Your task to perform on an android device: check android version Image 0: 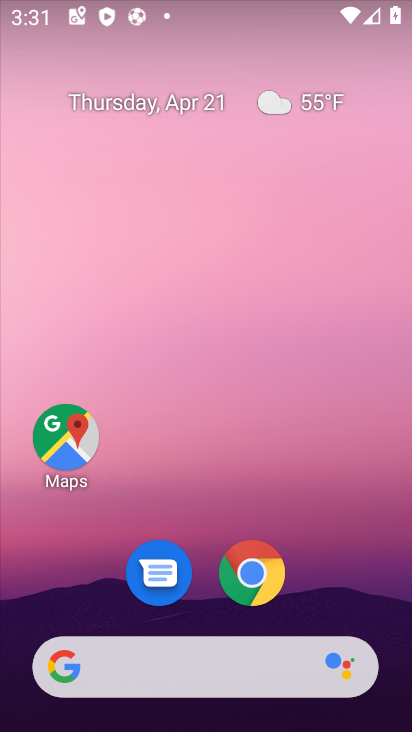
Step 0: drag from (358, 580) to (299, 164)
Your task to perform on an android device: check android version Image 1: 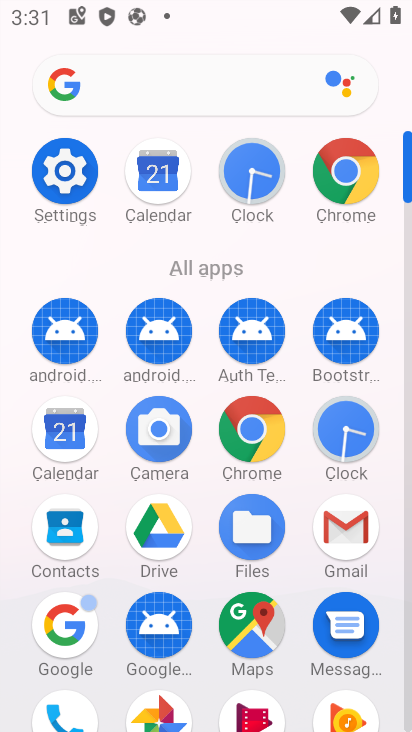
Step 1: click (409, 709)
Your task to perform on an android device: check android version Image 2: 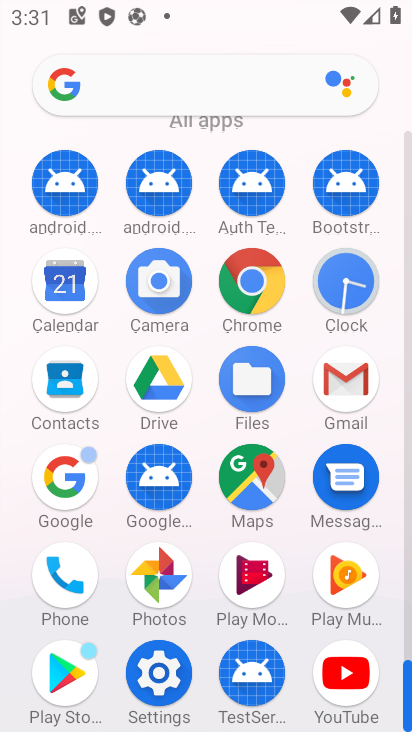
Step 2: click (153, 673)
Your task to perform on an android device: check android version Image 3: 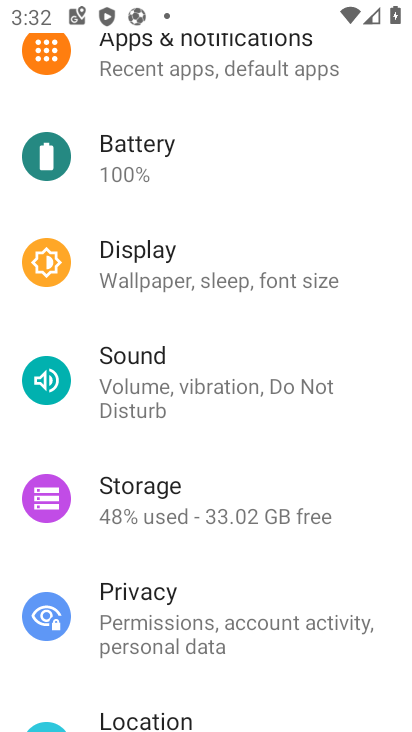
Step 3: drag from (299, 602) to (334, 299)
Your task to perform on an android device: check android version Image 4: 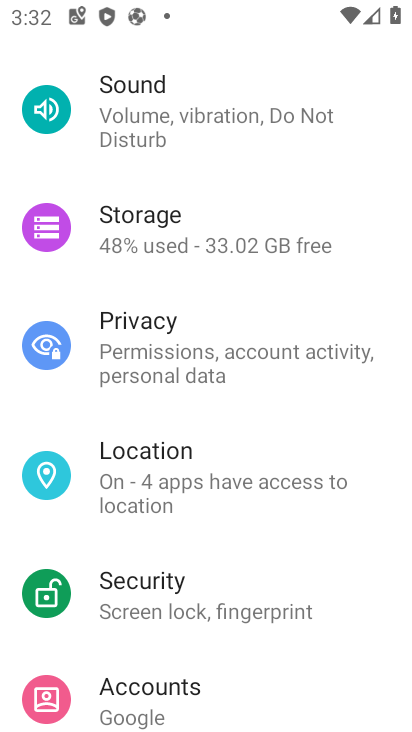
Step 4: drag from (340, 556) to (351, 305)
Your task to perform on an android device: check android version Image 5: 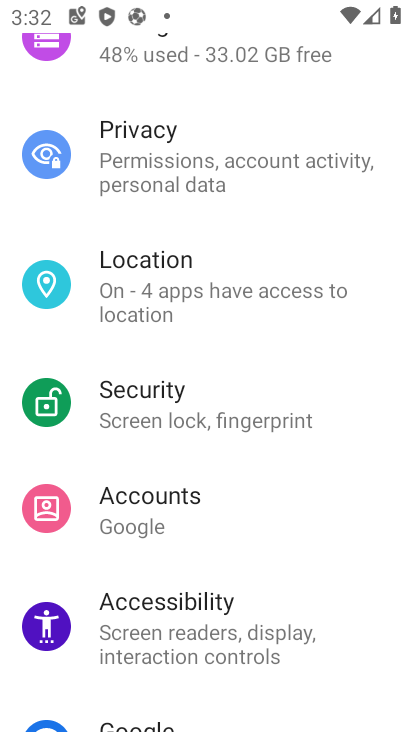
Step 5: drag from (340, 580) to (348, 304)
Your task to perform on an android device: check android version Image 6: 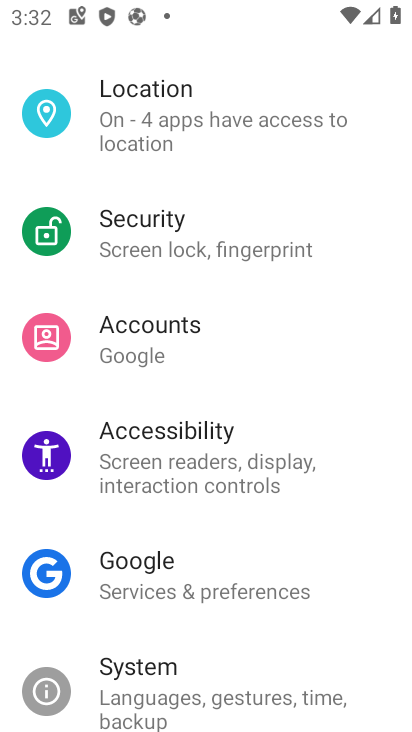
Step 6: drag from (319, 584) to (305, 212)
Your task to perform on an android device: check android version Image 7: 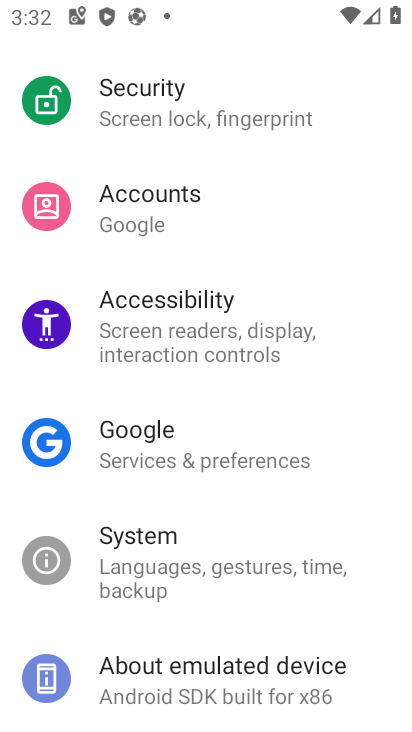
Step 7: click (158, 675)
Your task to perform on an android device: check android version Image 8: 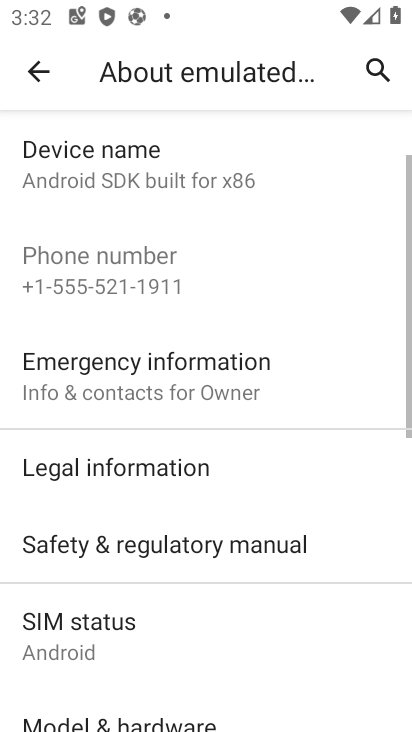
Step 8: drag from (365, 504) to (356, 240)
Your task to perform on an android device: check android version Image 9: 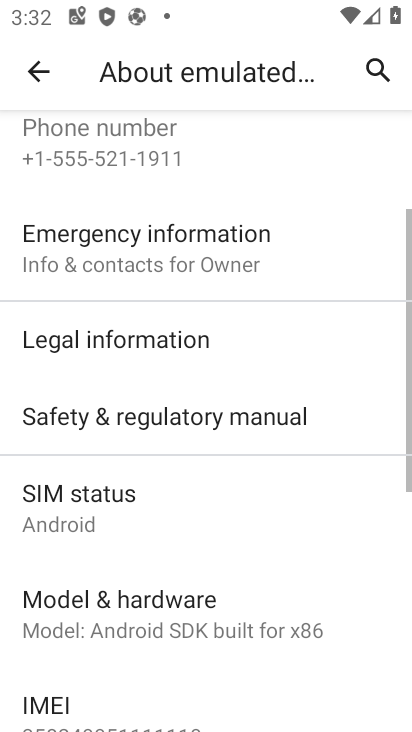
Step 9: drag from (331, 554) to (337, 227)
Your task to perform on an android device: check android version Image 10: 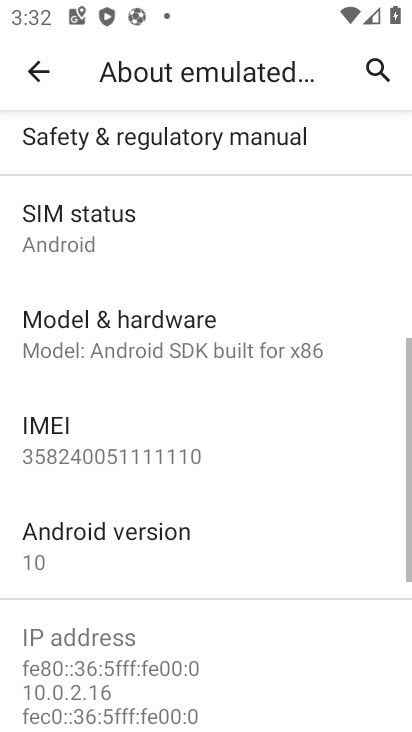
Step 10: click (67, 540)
Your task to perform on an android device: check android version Image 11: 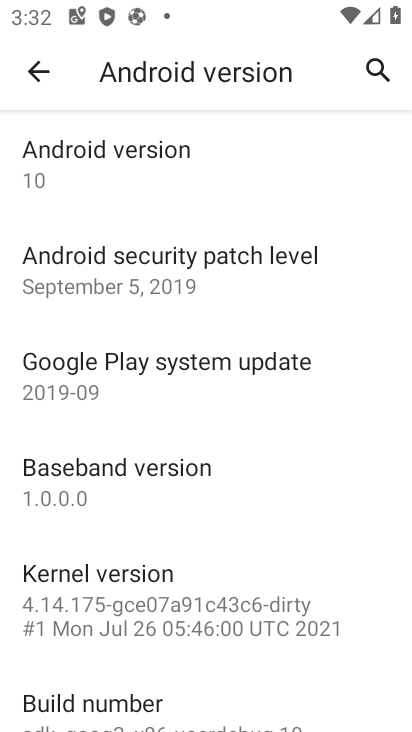
Step 11: task complete